Your task to perform on an android device: Go to Android settings Image 0: 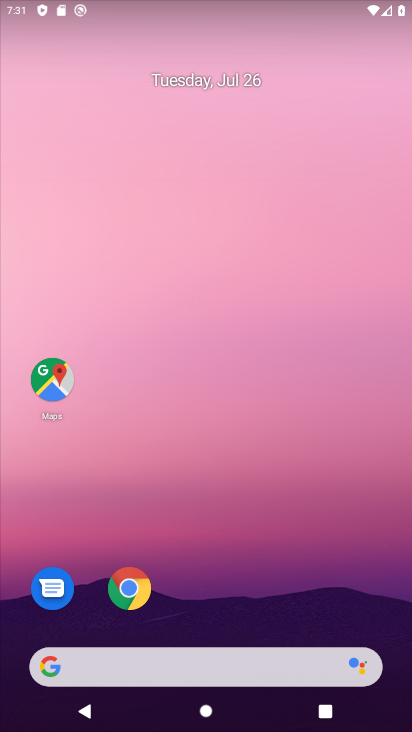
Step 0: drag from (240, 446) to (227, 138)
Your task to perform on an android device: Go to Android settings Image 1: 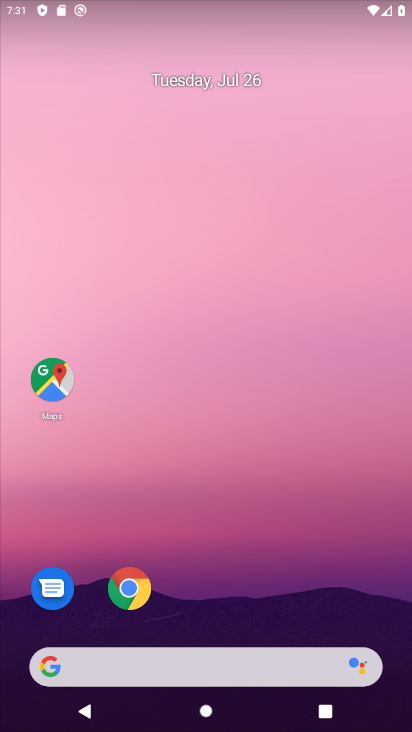
Step 1: drag from (309, 556) to (316, 8)
Your task to perform on an android device: Go to Android settings Image 2: 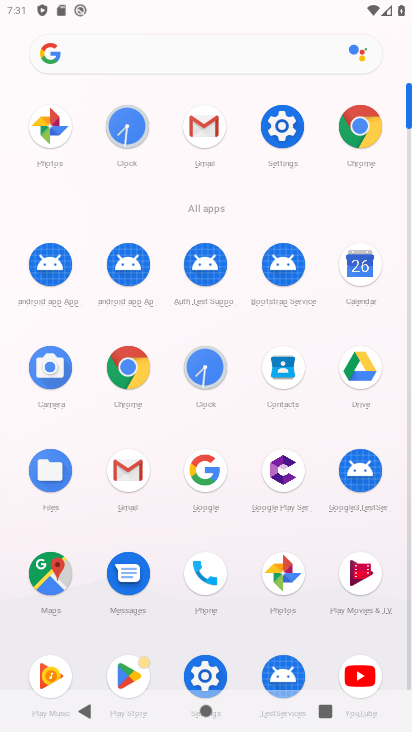
Step 2: click (288, 186)
Your task to perform on an android device: Go to Android settings Image 3: 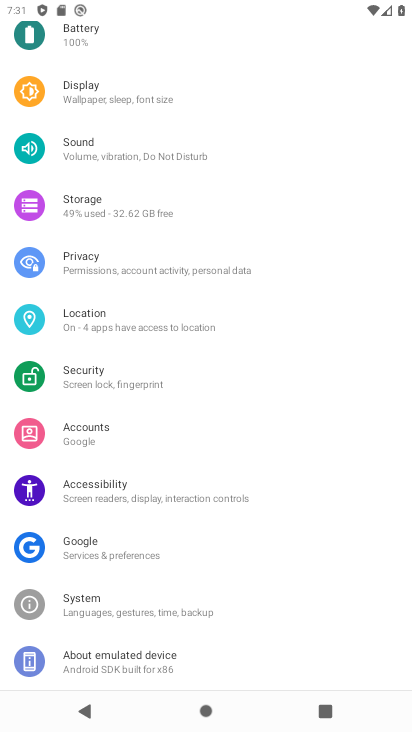
Step 3: click (284, 115)
Your task to perform on an android device: Go to Android settings Image 4: 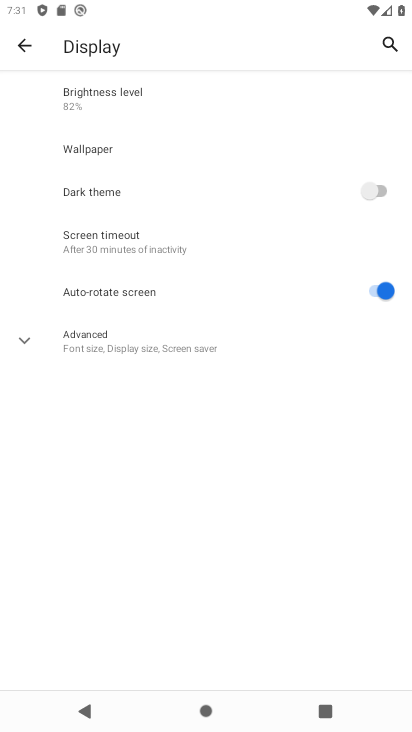
Step 4: task complete